Your task to perform on an android device: turn on the 12-hour format for clock Image 0: 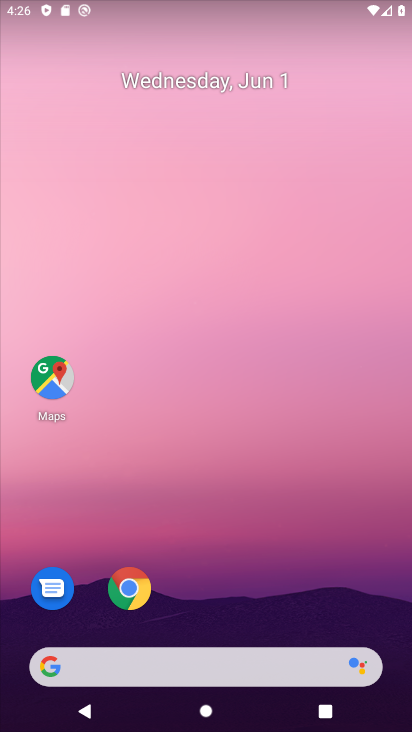
Step 0: drag from (247, 598) to (211, 173)
Your task to perform on an android device: turn on the 12-hour format for clock Image 1: 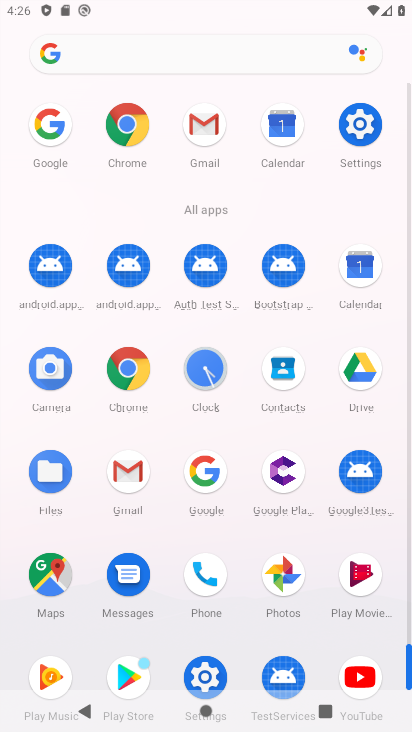
Step 1: click (205, 366)
Your task to perform on an android device: turn on the 12-hour format for clock Image 2: 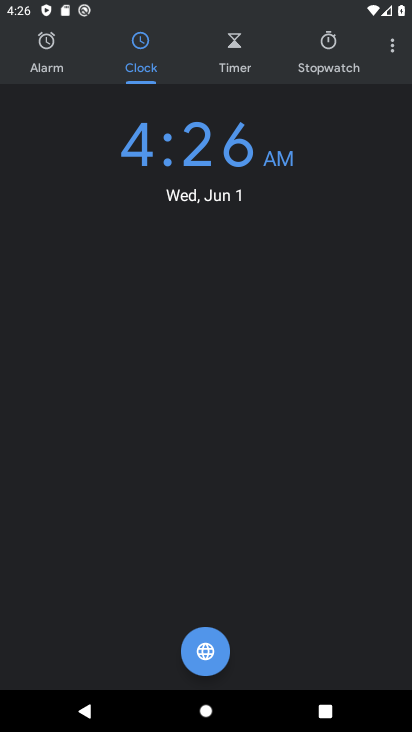
Step 2: click (393, 43)
Your task to perform on an android device: turn on the 12-hour format for clock Image 3: 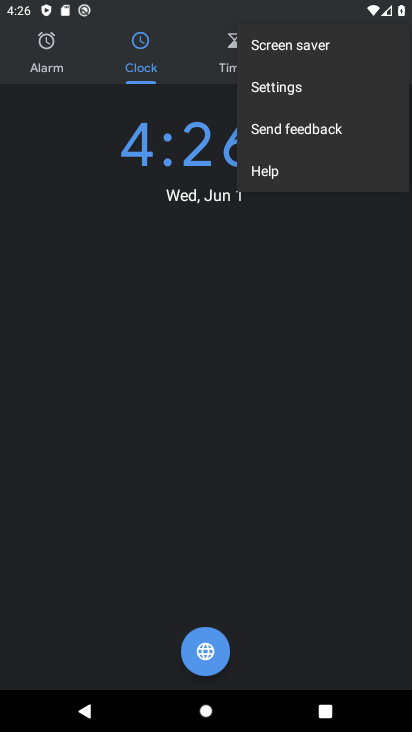
Step 3: click (296, 88)
Your task to perform on an android device: turn on the 12-hour format for clock Image 4: 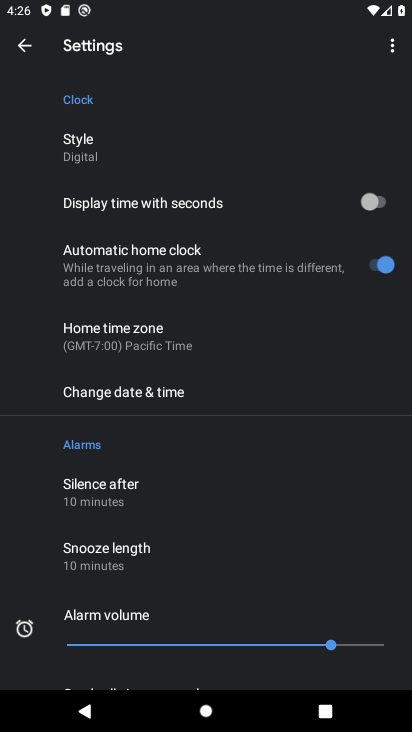
Step 4: click (169, 391)
Your task to perform on an android device: turn on the 12-hour format for clock Image 5: 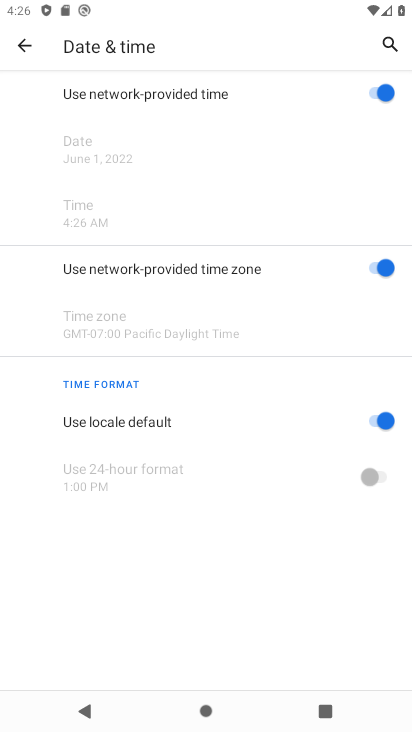
Step 5: task complete